Your task to perform on an android device: open app "Reddit" (install if not already installed) Image 0: 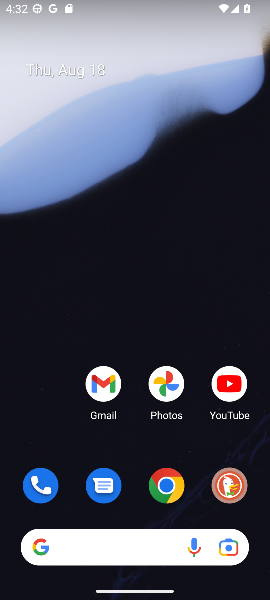
Step 0: drag from (49, 424) to (97, 65)
Your task to perform on an android device: open app "Reddit" (install if not already installed) Image 1: 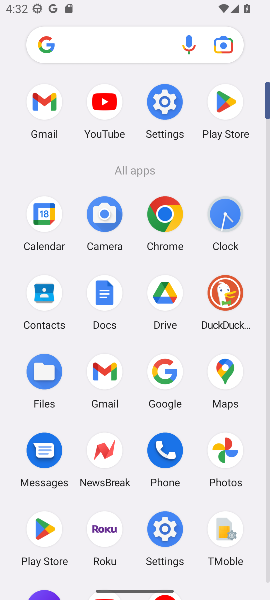
Step 1: click (229, 95)
Your task to perform on an android device: open app "Reddit" (install if not already installed) Image 2: 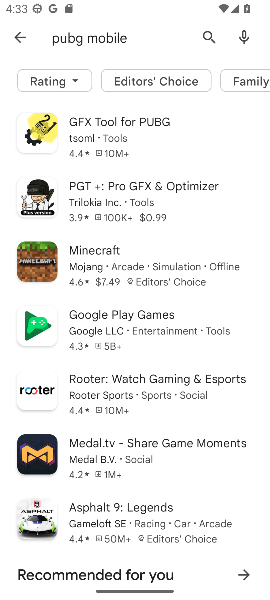
Step 2: click (211, 35)
Your task to perform on an android device: open app "Reddit" (install if not already installed) Image 3: 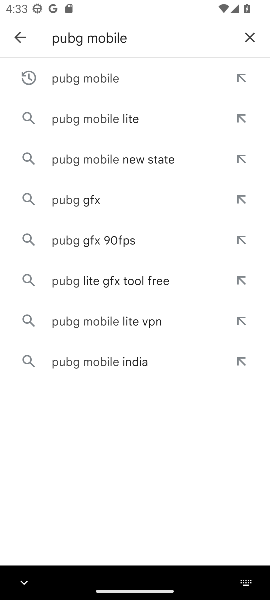
Step 3: click (253, 34)
Your task to perform on an android device: open app "Reddit" (install if not already installed) Image 4: 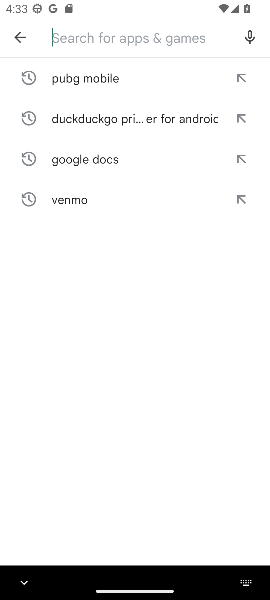
Step 4: click (78, 43)
Your task to perform on an android device: open app "Reddit" (install if not already installed) Image 5: 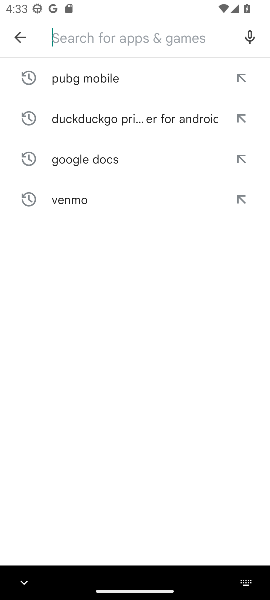
Step 5: type "reddit"
Your task to perform on an android device: open app "Reddit" (install if not already installed) Image 6: 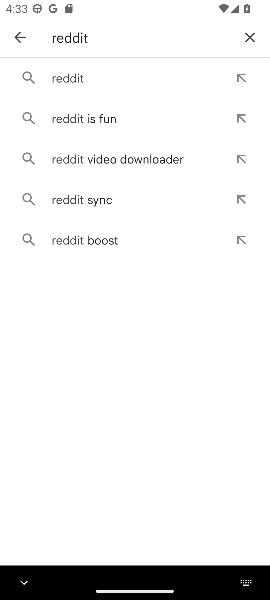
Step 6: click (87, 67)
Your task to perform on an android device: open app "Reddit" (install if not already installed) Image 7: 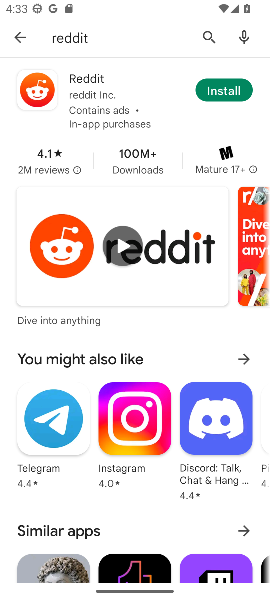
Step 7: click (217, 90)
Your task to perform on an android device: open app "Reddit" (install if not already installed) Image 8: 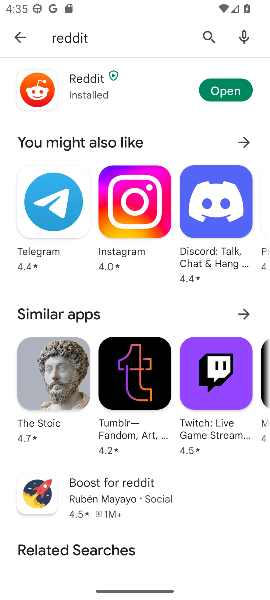
Step 8: click (223, 91)
Your task to perform on an android device: open app "Reddit" (install if not already installed) Image 9: 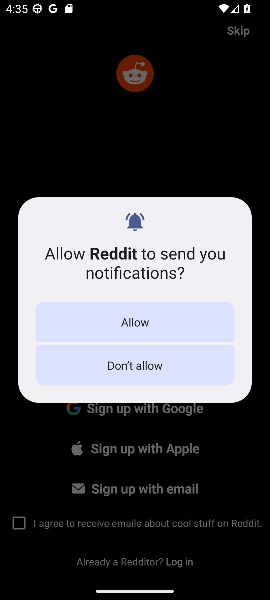
Step 9: click (148, 364)
Your task to perform on an android device: open app "Reddit" (install if not already installed) Image 10: 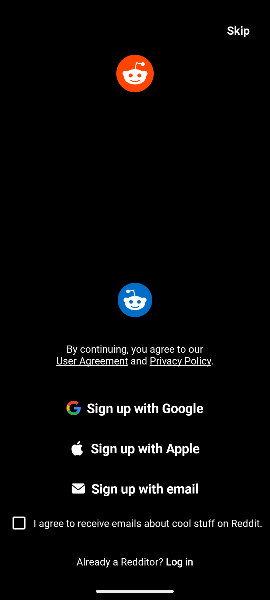
Step 10: task complete